Your task to perform on an android device: find snoozed emails in the gmail app Image 0: 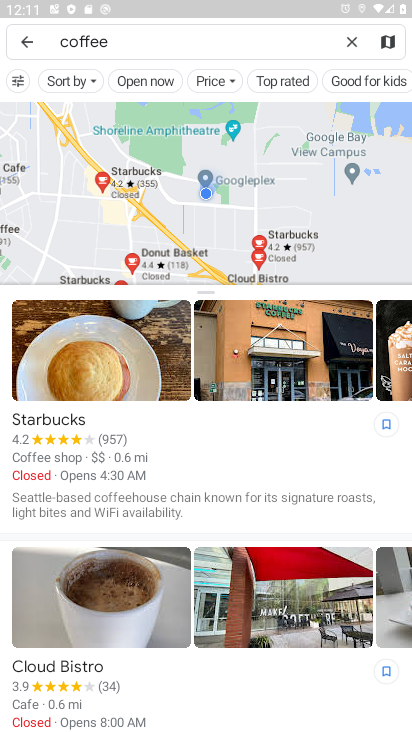
Step 0: press home button
Your task to perform on an android device: find snoozed emails in the gmail app Image 1: 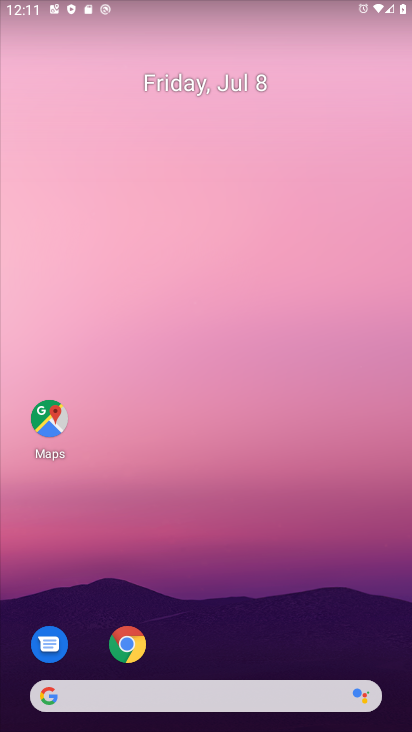
Step 1: drag from (200, 628) to (352, 11)
Your task to perform on an android device: find snoozed emails in the gmail app Image 2: 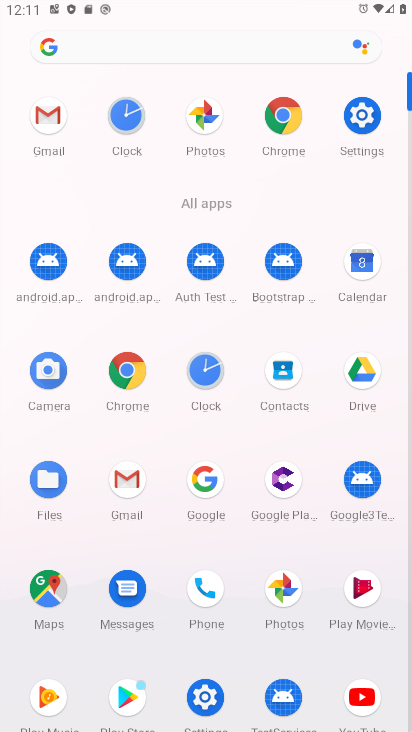
Step 2: click (121, 505)
Your task to perform on an android device: find snoozed emails in the gmail app Image 3: 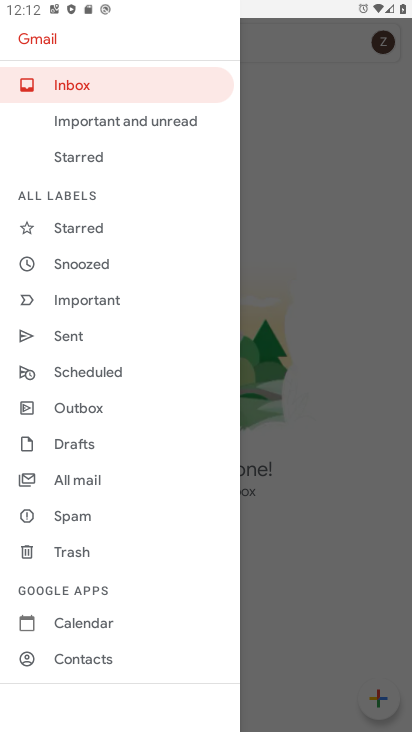
Step 3: click (107, 266)
Your task to perform on an android device: find snoozed emails in the gmail app Image 4: 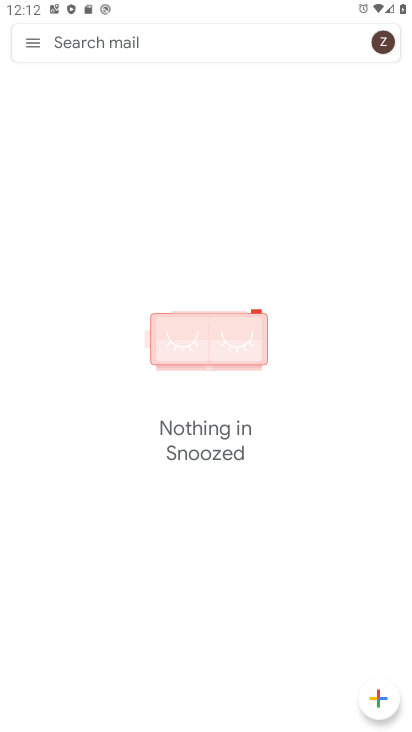
Step 4: task complete